Your task to perform on an android device: change the clock display to analog Image 0: 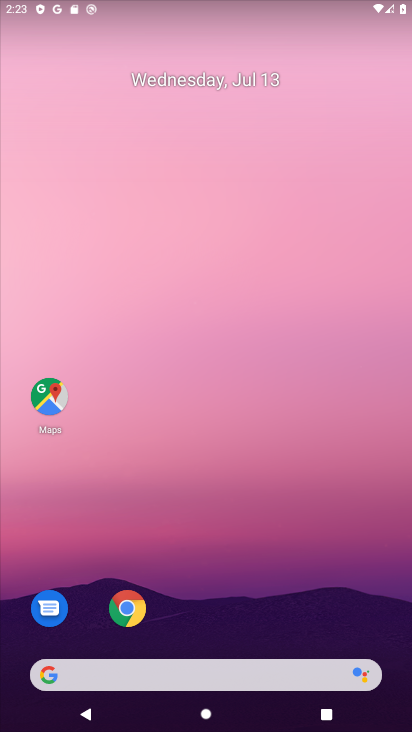
Step 0: drag from (205, 622) to (191, 52)
Your task to perform on an android device: change the clock display to analog Image 1: 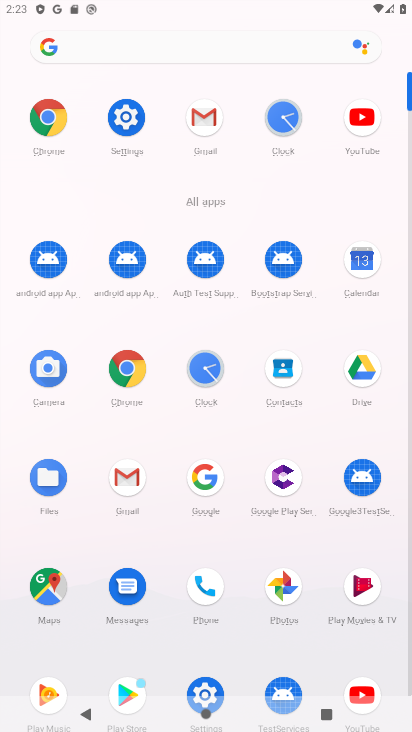
Step 1: click (214, 366)
Your task to perform on an android device: change the clock display to analog Image 2: 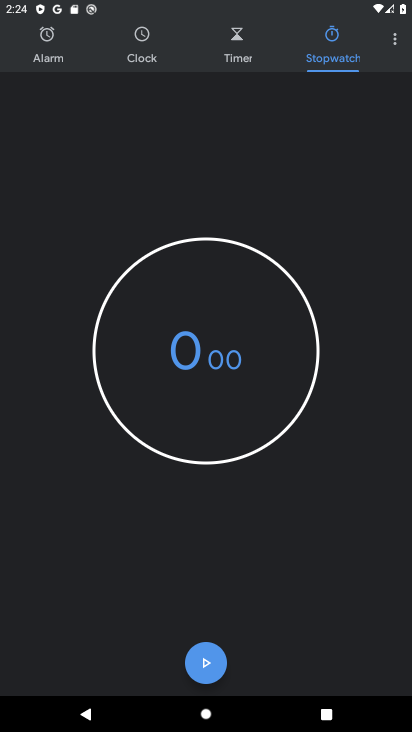
Step 2: click (395, 43)
Your task to perform on an android device: change the clock display to analog Image 3: 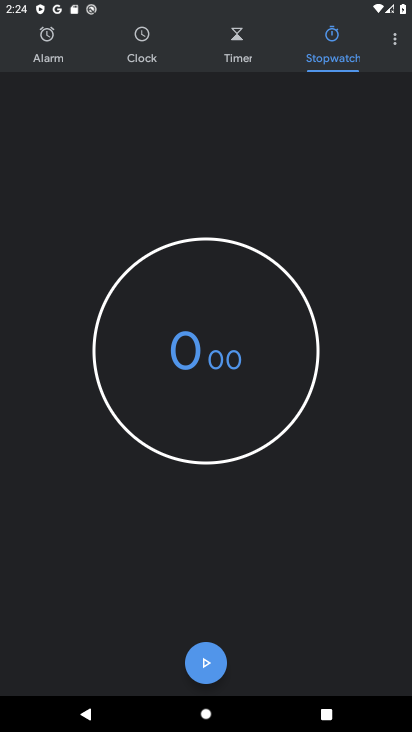
Step 3: click (400, 40)
Your task to perform on an android device: change the clock display to analog Image 4: 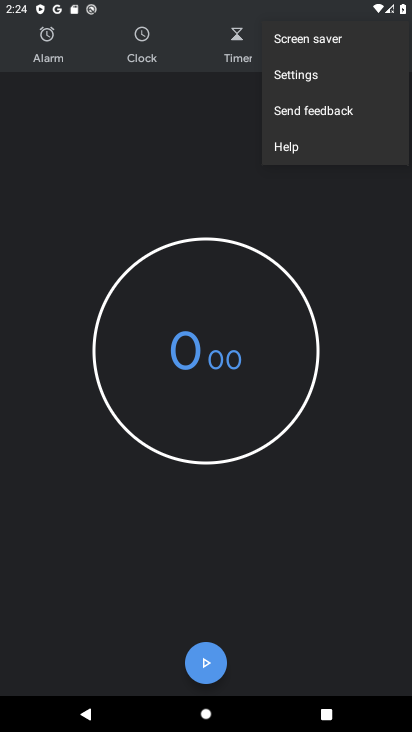
Step 4: click (337, 82)
Your task to perform on an android device: change the clock display to analog Image 5: 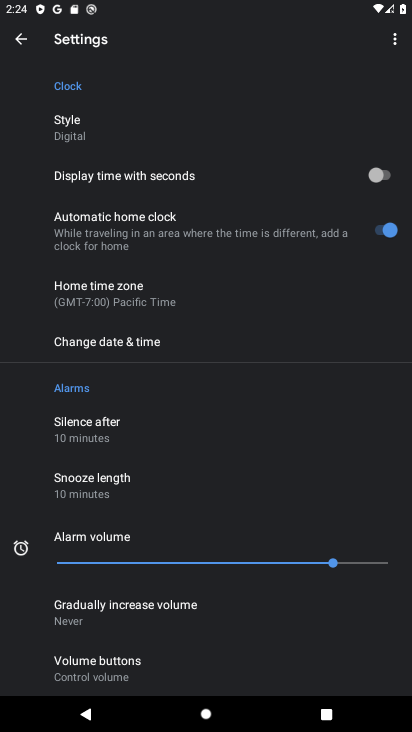
Step 5: click (132, 135)
Your task to perform on an android device: change the clock display to analog Image 6: 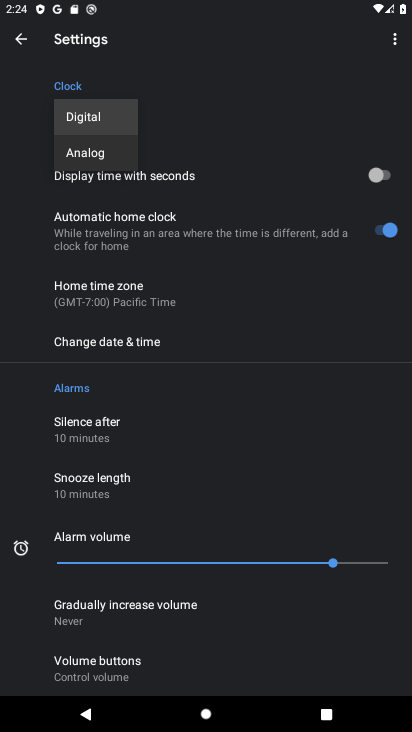
Step 6: click (110, 158)
Your task to perform on an android device: change the clock display to analog Image 7: 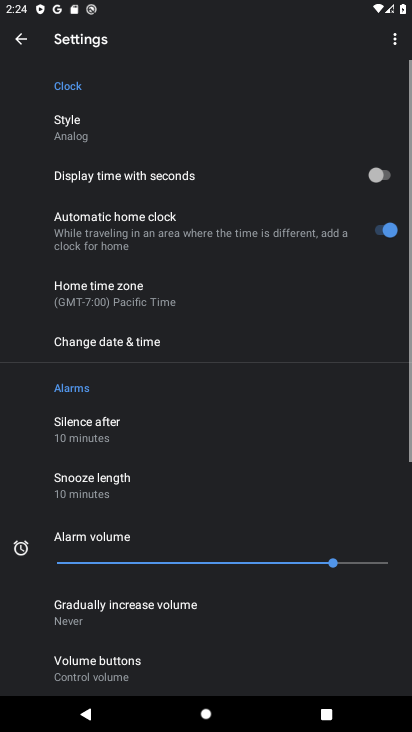
Step 7: task complete